Your task to perform on an android device: turn pop-ups on in chrome Image 0: 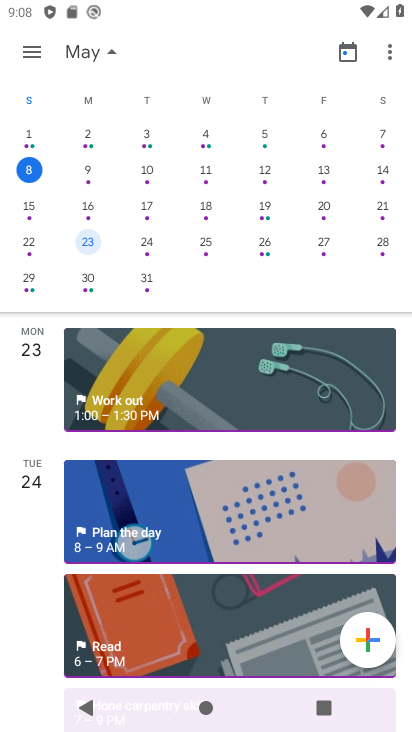
Step 0: press home button
Your task to perform on an android device: turn pop-ups on in chrome Image 1: 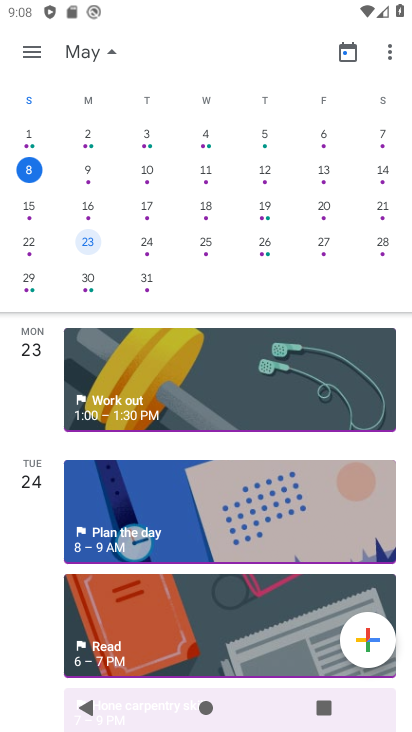
Step 1: press home button
Your task to perform on an android device: turn pop-ups on in chrome Image 2: 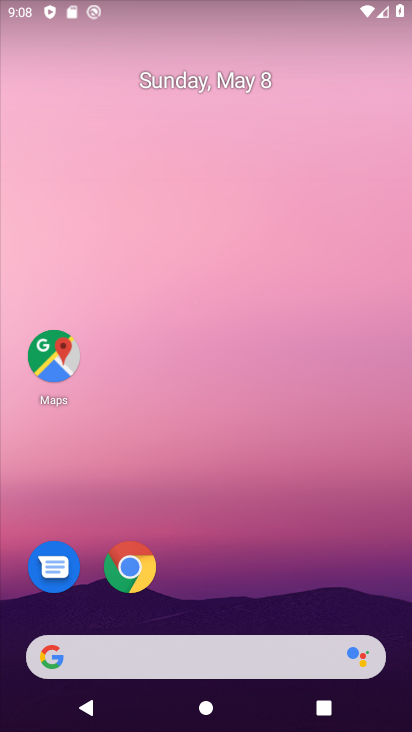
Step 2: drag from (289, 691) to (141, 17)
Your task to perform on an android device: turn pop-ups on in chrome Image 3: 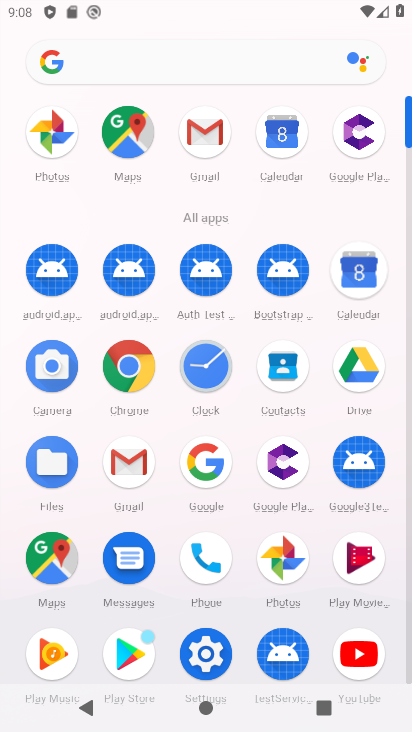
Step 3: click (126, 365)
Your task to perform on an android device: turn pop-ups on in chrome Image 4: 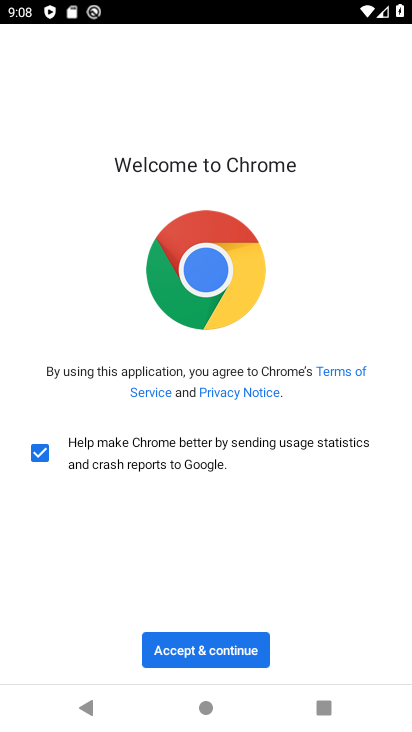
Step 4: click (179, 656)
Your task to perform on an android device: turn pop-ups on in chrome Image 5: 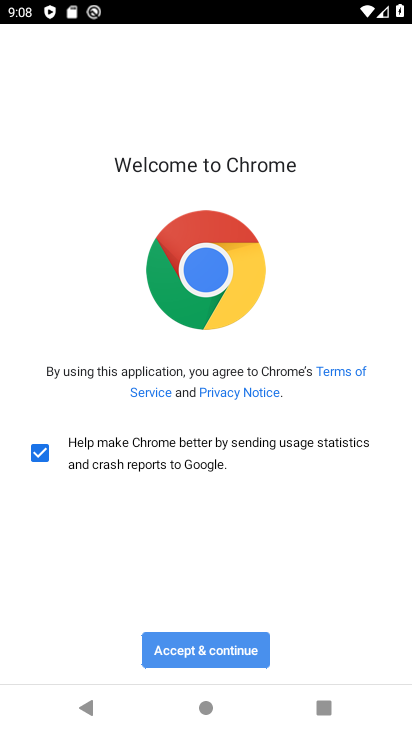
Step 5: click (173, 653)
Your task to perform on an android device: turn pop-ups on in chrome Image 6: 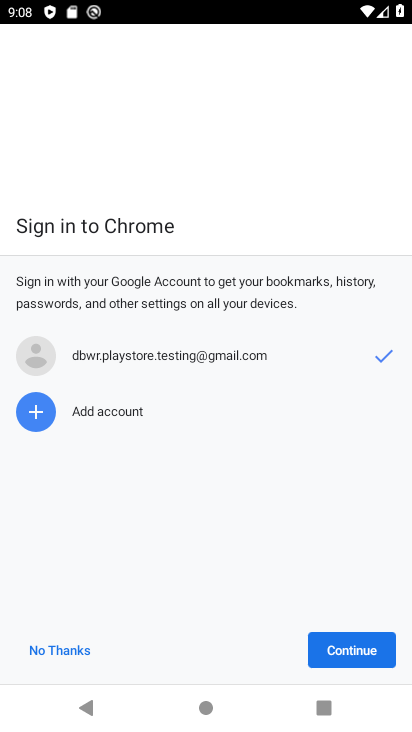
Step 6: click (179, 656)
Your task to perform on an android device: turn pop-ups on in chrome Image 7: 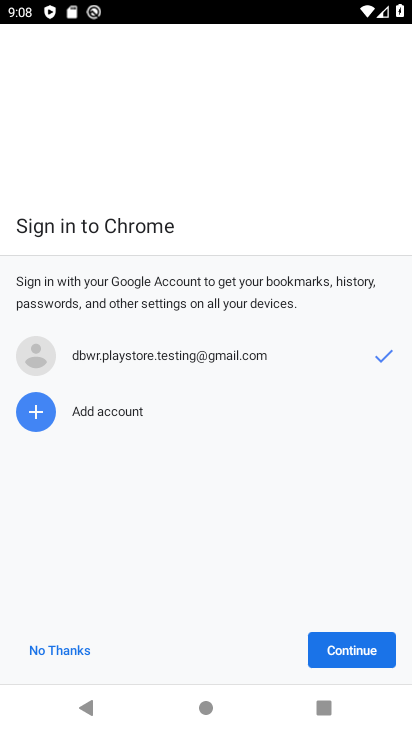
Step 7: click (349, 656)
Your task to perform on an android device: turn pop-ups on in chrome Image 8: 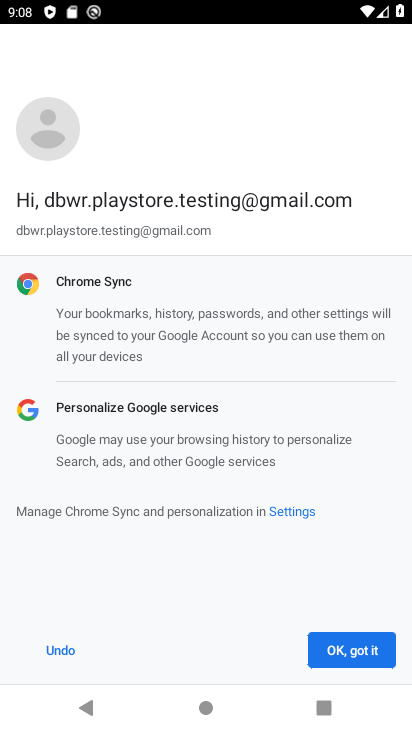
Step 8: click (348, 657)
Your task to perform on an android device: turn pop-ups on in chrome Image 9: 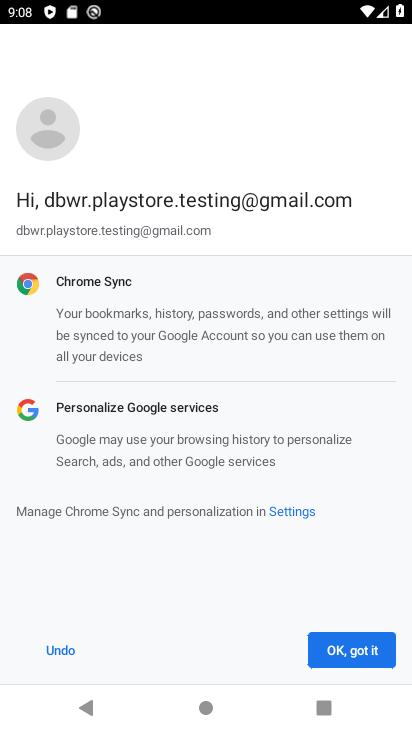
Step 9: click (348, 657)
Your task to perform on an android device: turn pop-ups on in chrome Image 10: 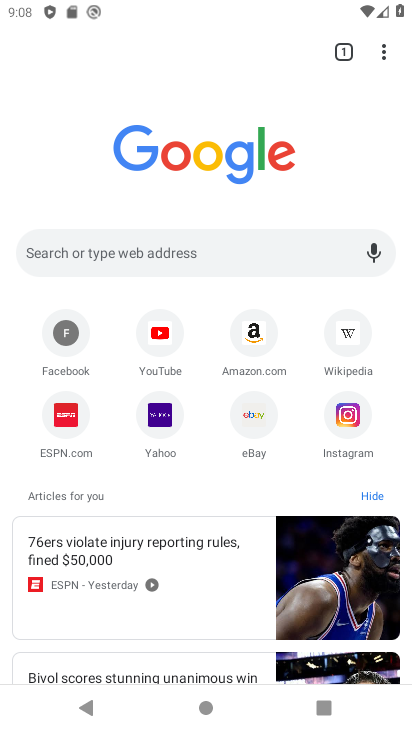
Step 10: click (382, 55)
Your task to perform on an android device: turn pop-ups on in chrome Image 11: 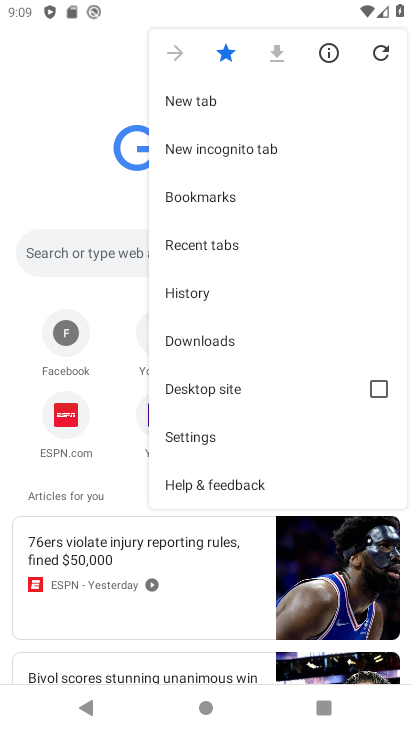
Step 11: click (193, 447)
Your task to perform on an android device: turn pop-ups on in chrome Image 12: 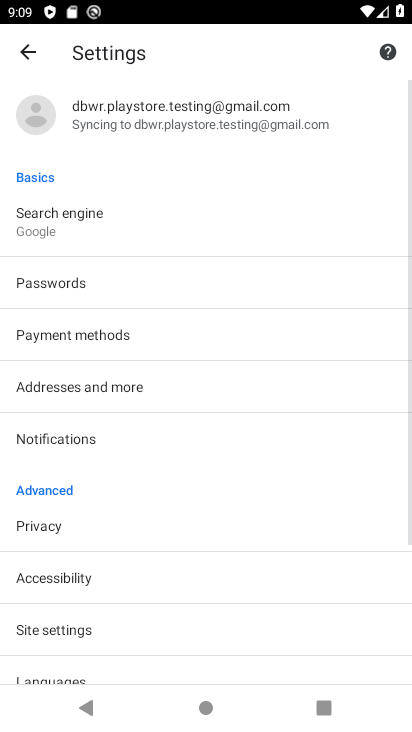
Step 12: drag from (135, 551) to (82, 261)
Your task to perform on an android device: turn pop-ups on in chrome Image 13: 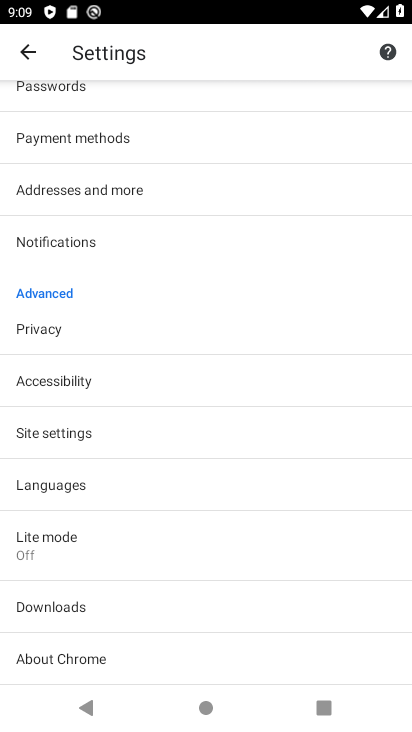
Step 13: click (45, 422)
Your task to perform on an android device: turn pop-ups on in chrome Image 14: 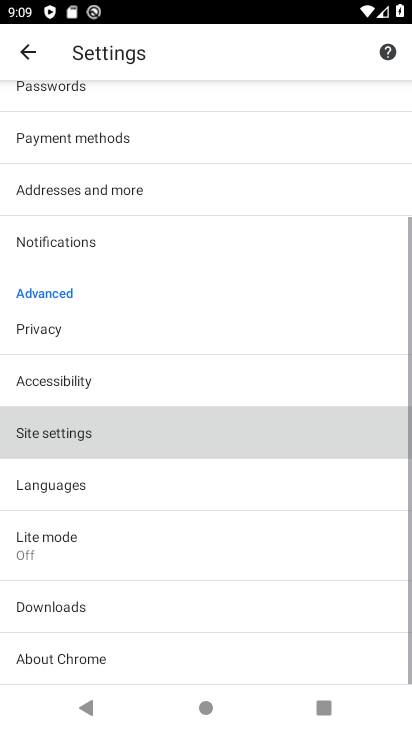
Step 14: click (50, 426)
Your task to perform on an android device: turn pop-ups on in chrome Image 15: 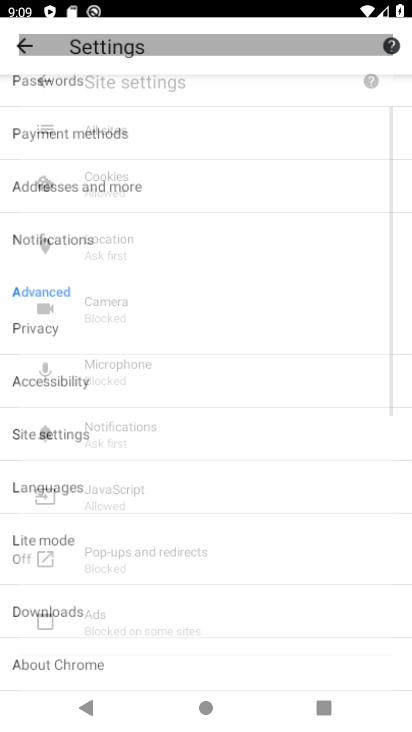
Step 15: click (52, 429)
Your task to perform on an android device: turn pop-ups on in chrome Image 16: 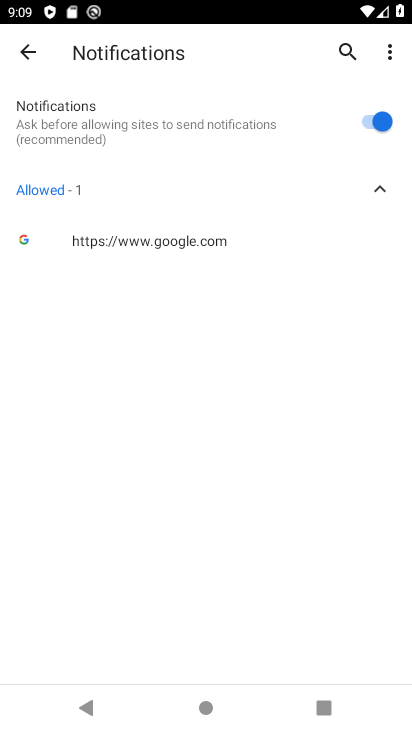
Step 16: click (23, 43)
Your task to perform on an android device: turn pop-ups on in chrome Image 17: 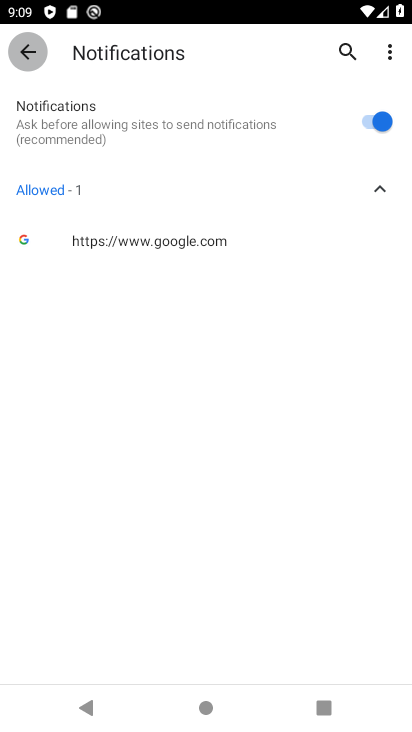
Step 17: click (18, 56)
Your task to perform on an android device: turn pop-ups on in chrome Image 18: 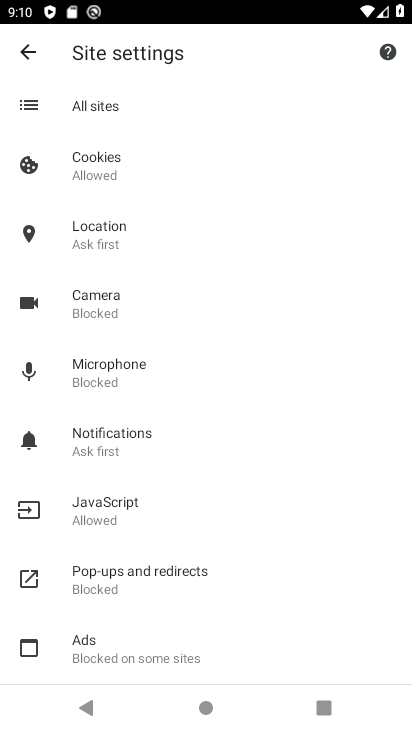
Step 18: click (101, 596)
Your task to perform on an android device: turn pop-ups on in chrome Image 19: 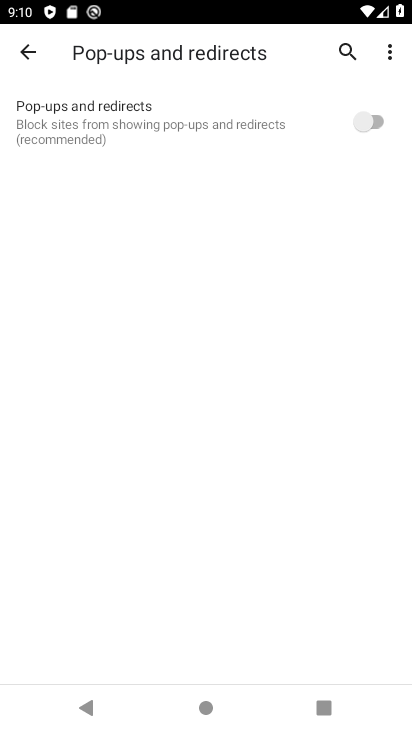
Step 19: task complete